Your task to perform on an android device: Search for seafood restaurants on Google Maps Image 0: 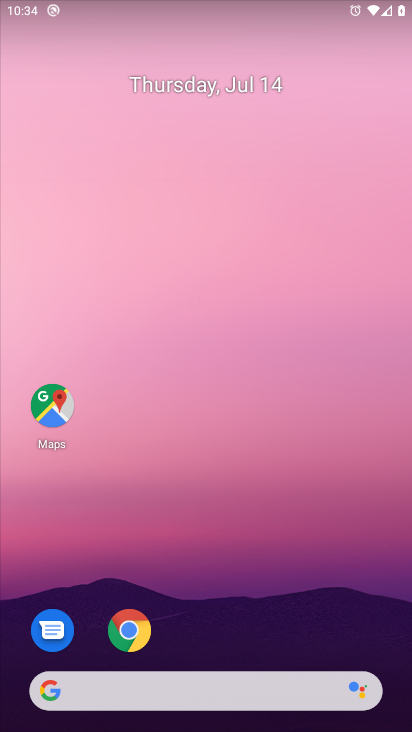
Step 0: click (42, 387)
Your task to perform on an android device: Search for seafood restaurants on Google Maps Image 1: 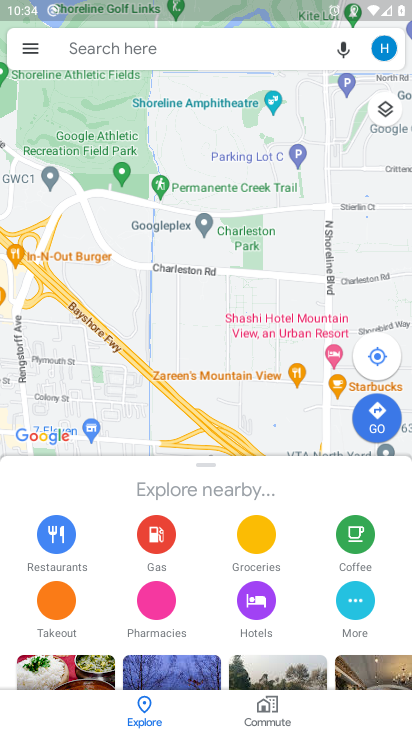
Step 1: click (95, 49)
Your task to perform on an android device: Search for seafood restaurants on Google Maps Image 2: 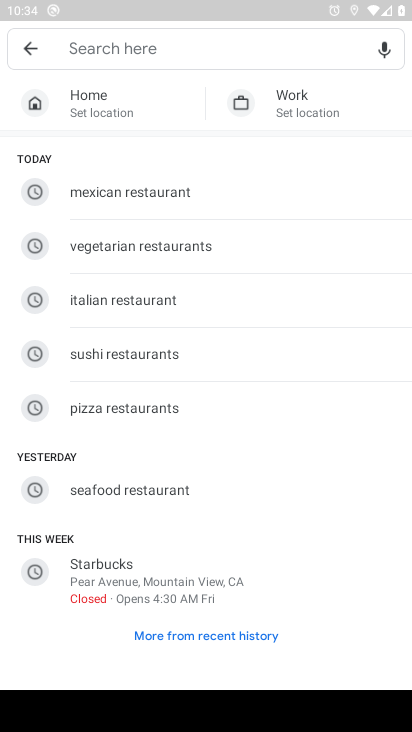
Step 2: click (117, 481)
Your task to perform on an android device: Search for seafood restaurants on Google Maps Image 3: 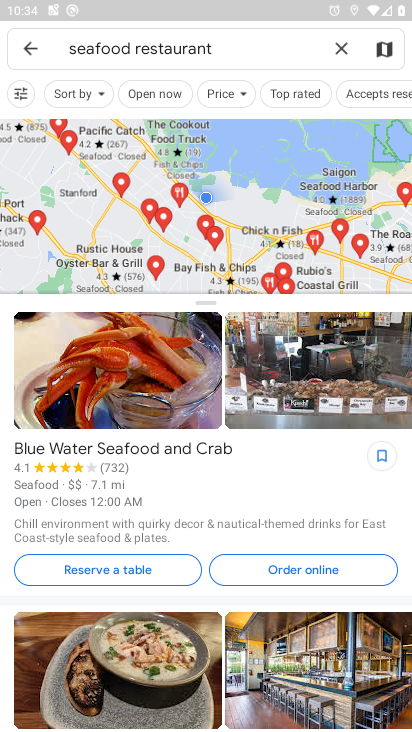
Step 3: task complete